Your task to perform on an android device: Go to location settings Image 0: 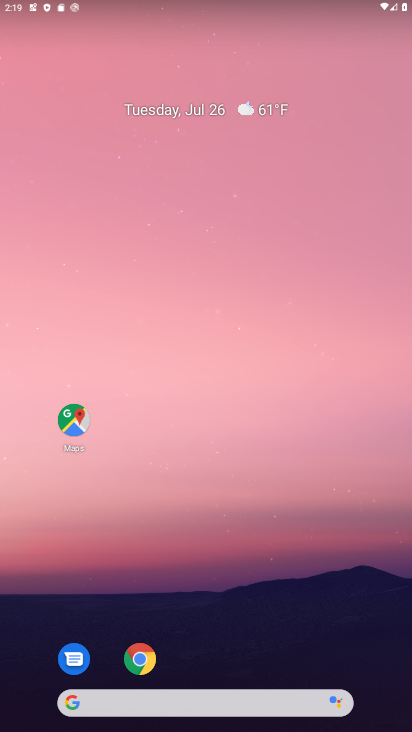
Step 0: drag from (200, 434) to (204, 122)
Your task to perform on an android device: Go to location settings Image 1: 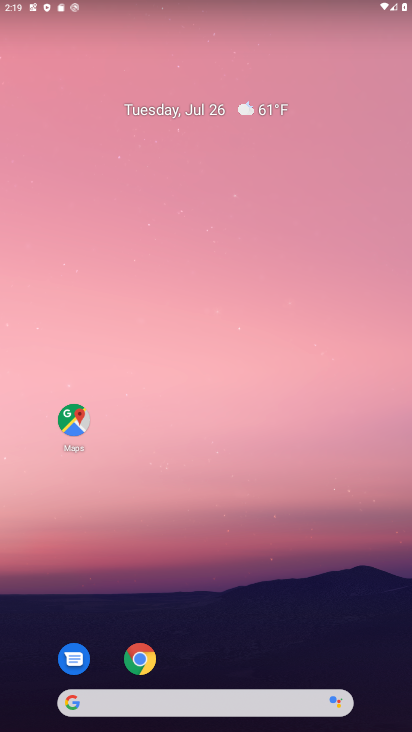
Step 1: drag from (210, 554) to (286, 166)
Your task to perform on an android device: Go to location settings Image 2: 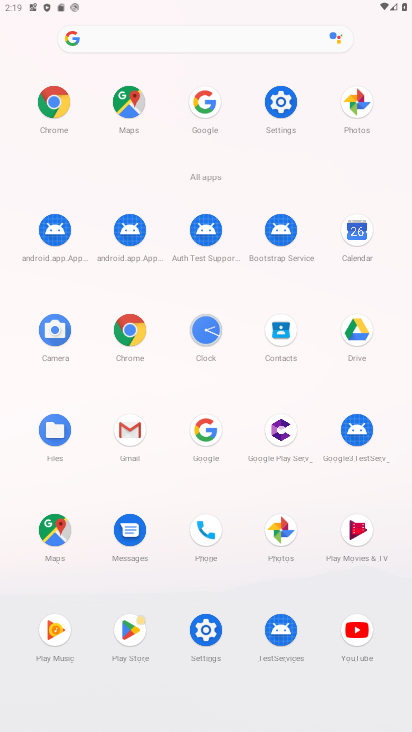
Step 2: click (279, 98)
Your task to perform on an android device: Go to location settings Image 3: 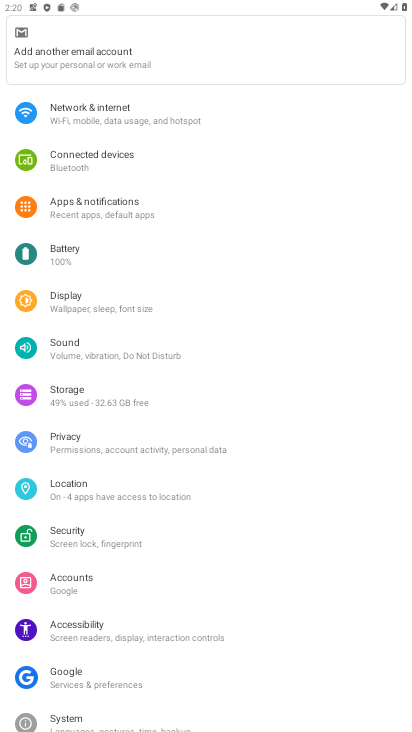
Step 3: click (98, 486)
Your task to perform on an android device: Go to location settings Image 4: 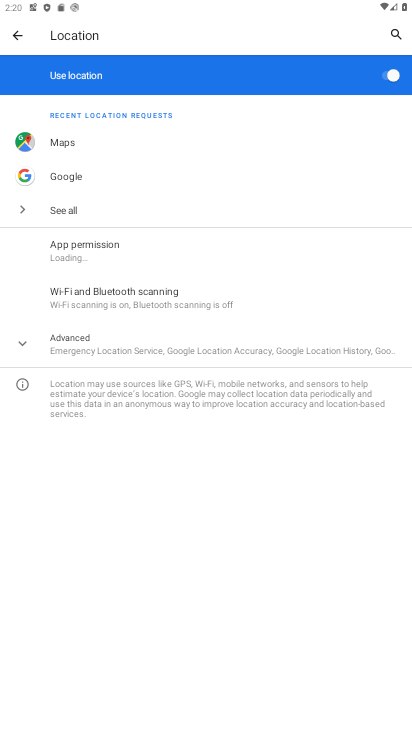
Step 4: task complete